Your task to perform on an android device: What's on my calendar today? Image 0: 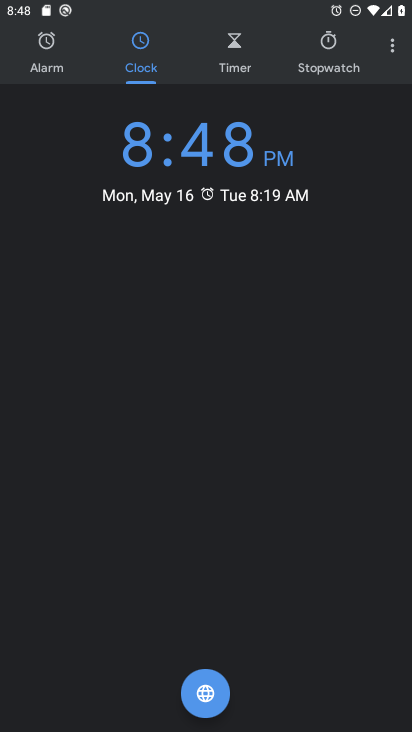
Step 0: press home button
Your task to perform on an android device: What's on my calendar today? Image 1: 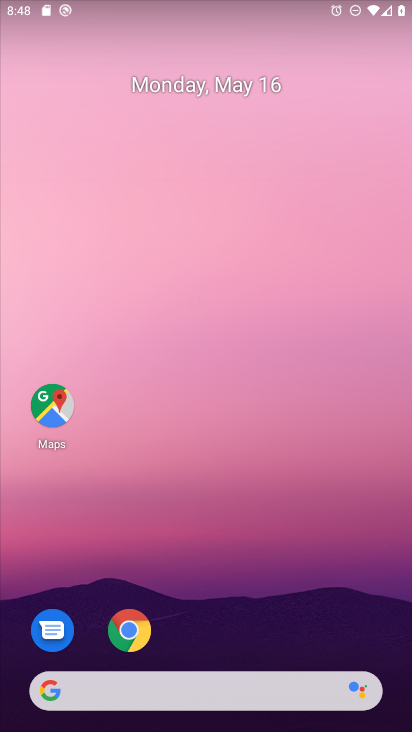
Step 1: drag from (241, 651) to (243, 284)
Your task to perform on an android device: What's on my calendar today? Image 2: 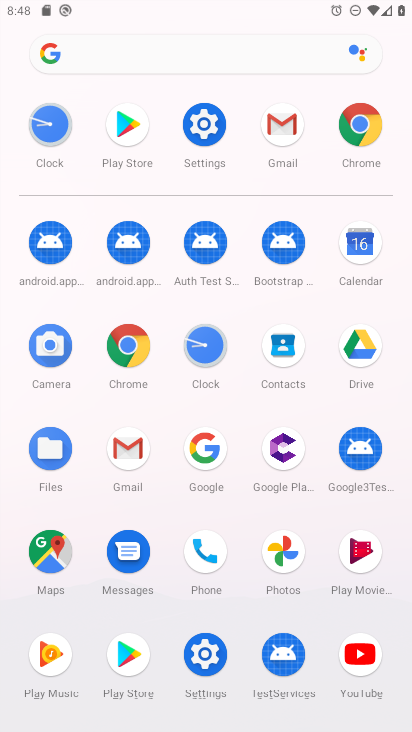
Step 2: click (360, 254)
Your task to perform on an android device: What's on my calendar today? Image 3: 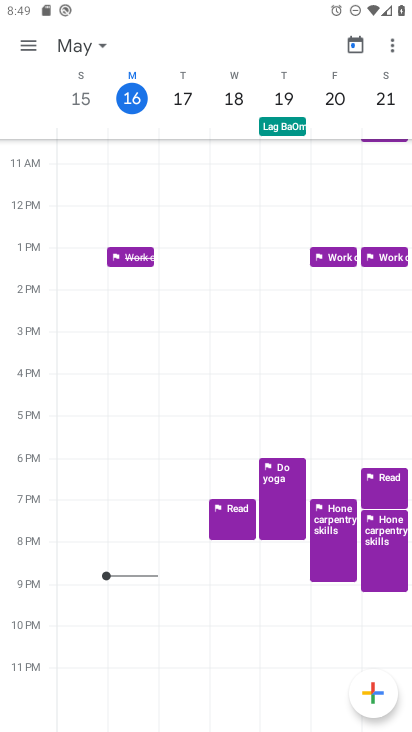
Step 3: click (186, 81)
Your task to perform on an android device: What's on my calendar today? Image 4: 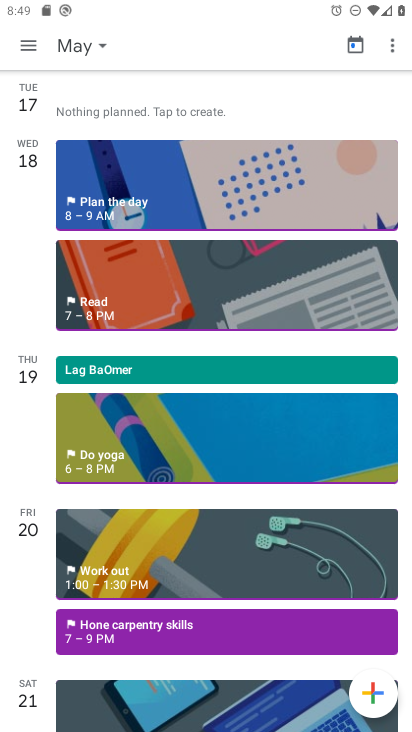
Step 4: drag from (87, 110) to (150, 472)
Your task to perform on an android device: What's on my calendar today? Image 5: 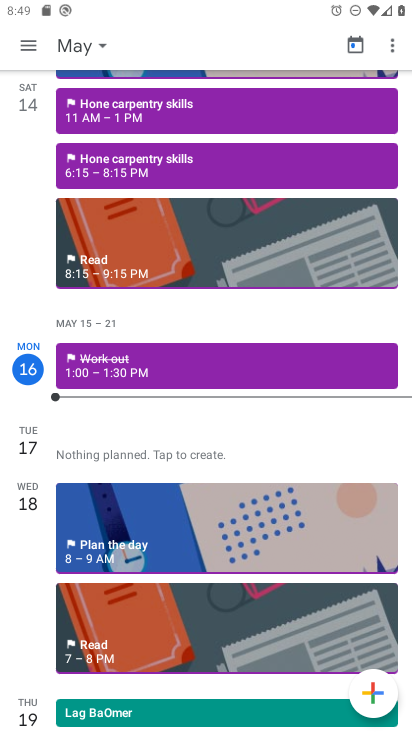
Step 5: click (34, 365)
Your task to perform on an android device: What's on my calendar today? Image 6: 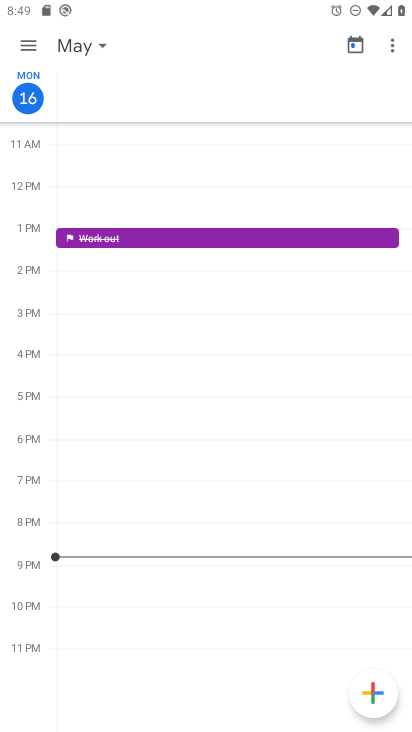
Step 6: click (37, 89)
Your task to perform on an android device: What's on my calendar today? Image 7: 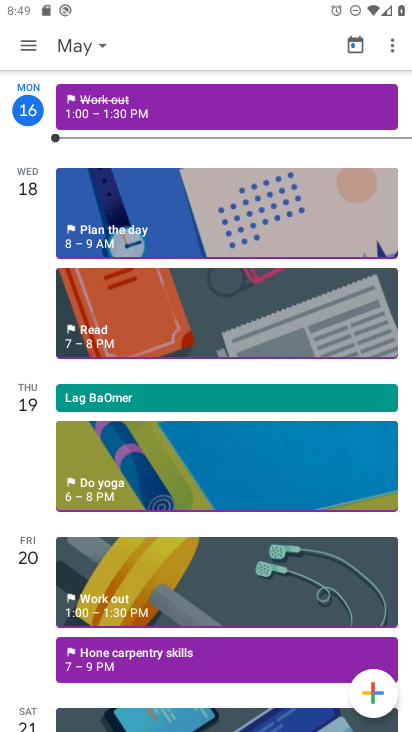
Step 7: drag from (20, 150) to (21, 421)
Your task to perform on an android device: What's on my calendar today? Image 8: 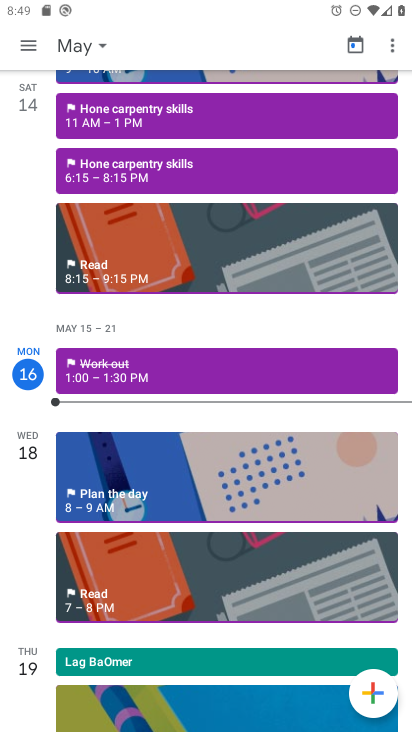
Step 8: drag from (12, 404) to (24, 217)
Your task to perform on an android device: What's on my calendar today? Image 9: 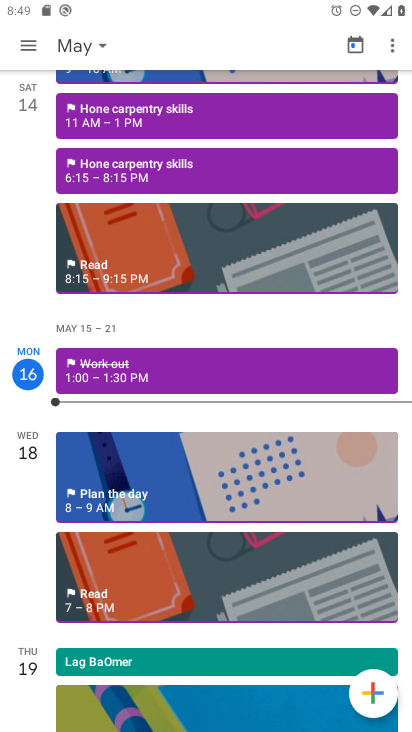
Step 9: click (65, 43)
Your task to perform on an android device: What's on my calendar today? Image 10: 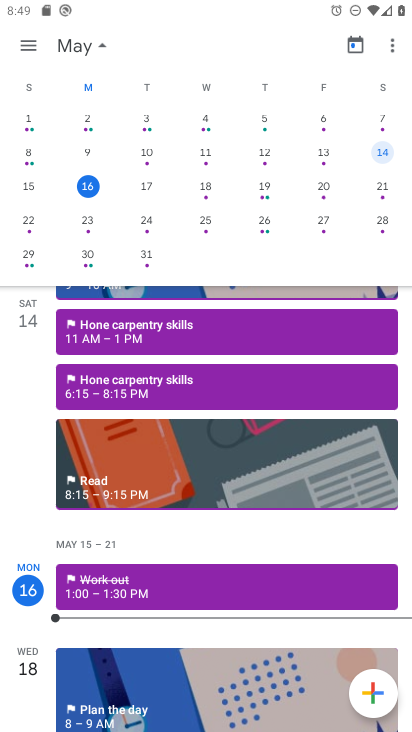
Step 10: click (135, 186)
Your task to perform on an android device: What's on my calendar today? Image 11: 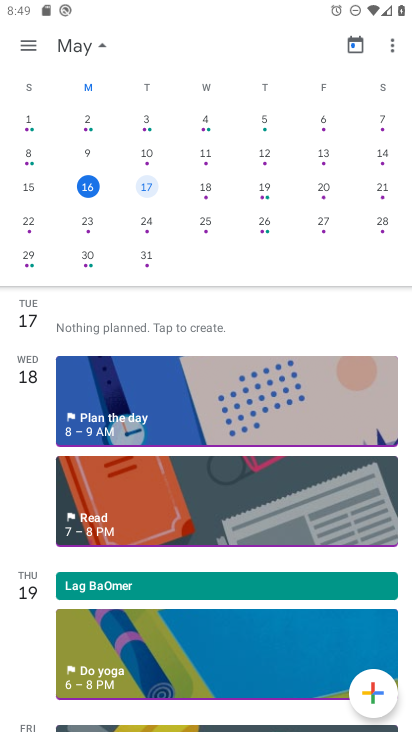
Step 11: click (88, 321)
Your task to perform on an android device: What's on my calendar today? Image 12: 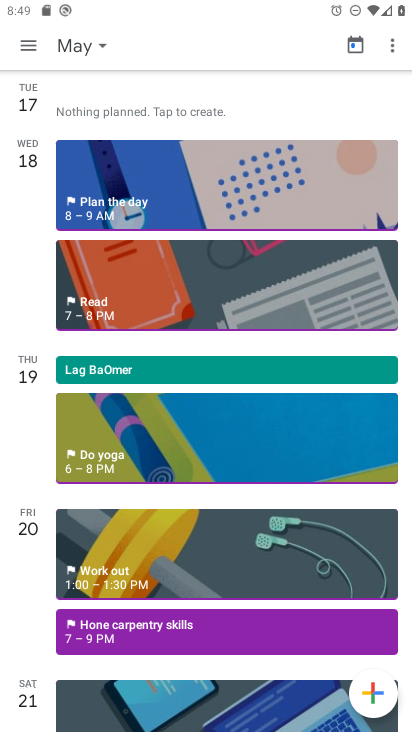
Step 12: task complete